Your task to perform on an android device: Search for pizza restaurants on Maps Image 0: 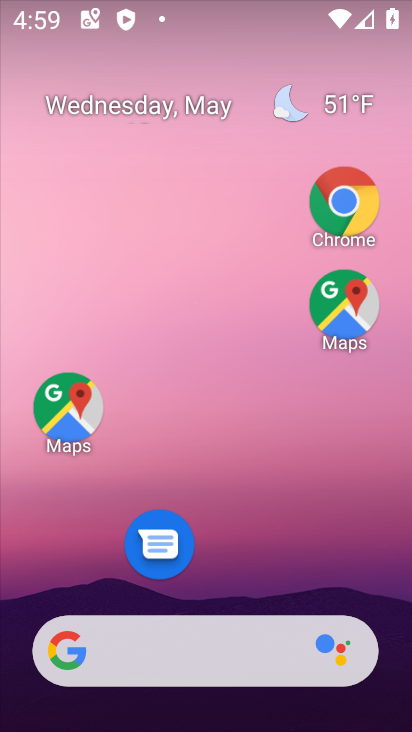
Step 0: click (57, 412)
Your task to perform on an android device: Search for pizza restaurants on Maps Image 1: 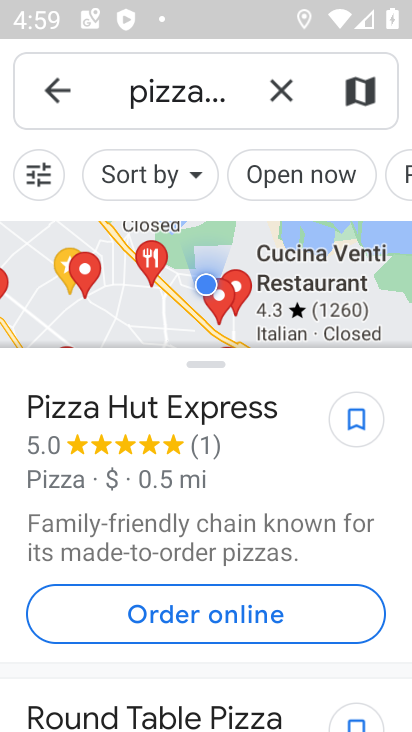
Step 1: task complete